Your task to perform on an android device: When is my next meeting? Image 0: 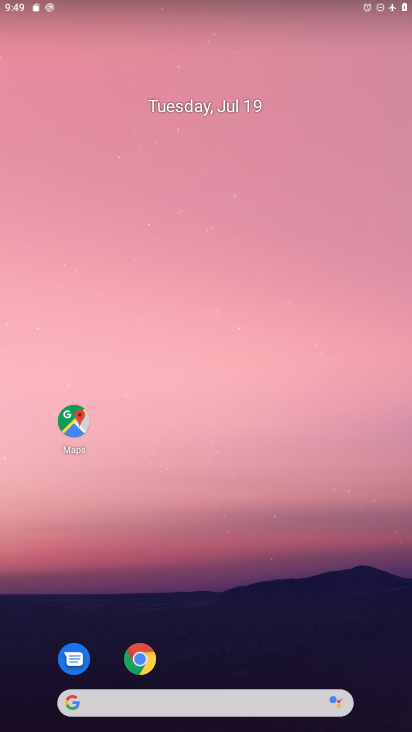
Step 0: drag from (243, 605) to (261, 316)
Your task to perform on an android device: When is my next meeting? Image 1: 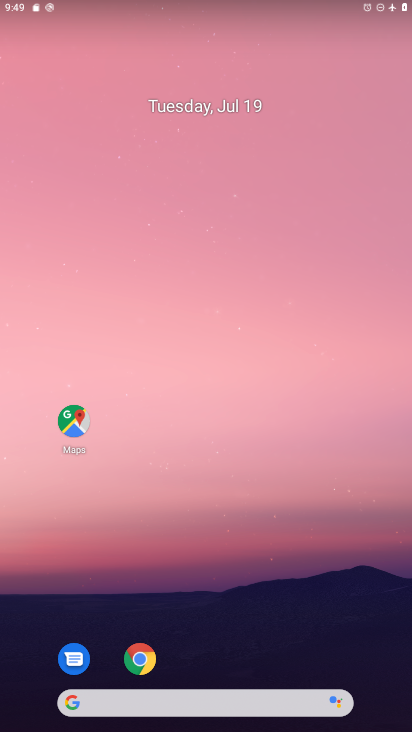
Step 1: drag from (201, 601) to (211, 209)
Your task to perform on an android device: When is my next meeting? Image 2: 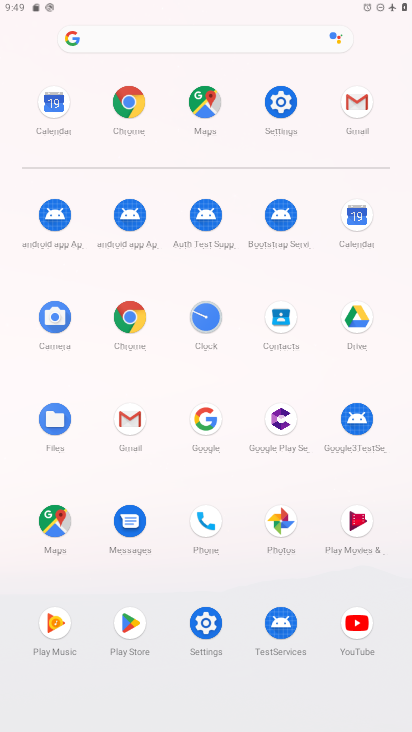
Step 2: click (347, 215)
Your task to perform on an android device: When is my next meeting? Image 3: 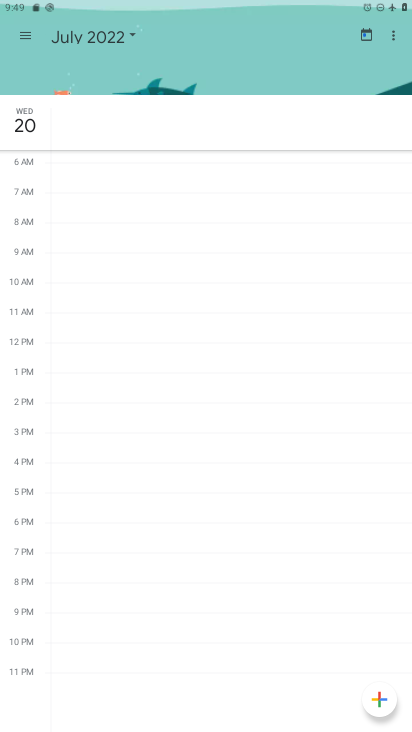
Step 3: task complete